Your task to perform on an android device: toggle improve location accuracy Image 0: 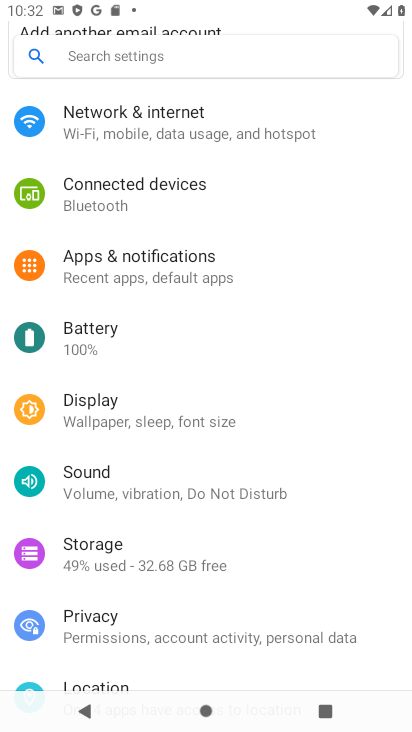
Step 0: drag from (171, 567) to (179, 428)
Your task to perform on an android device: toggle improve location accuracy Image 1: 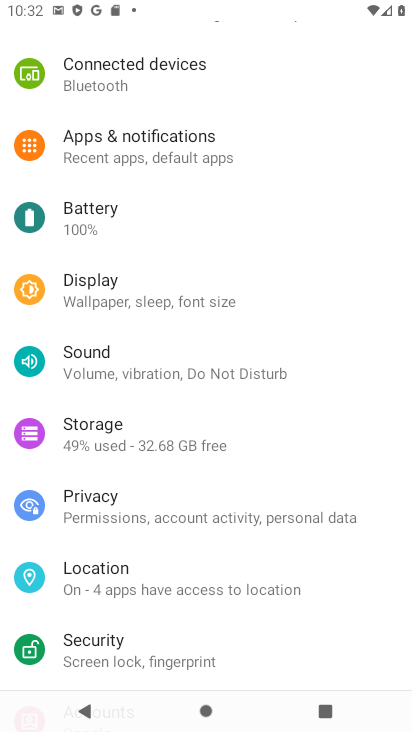
Step 1: click (156, 586)
Your task to perform on an android device: toggle improve location accuracy Image 2: 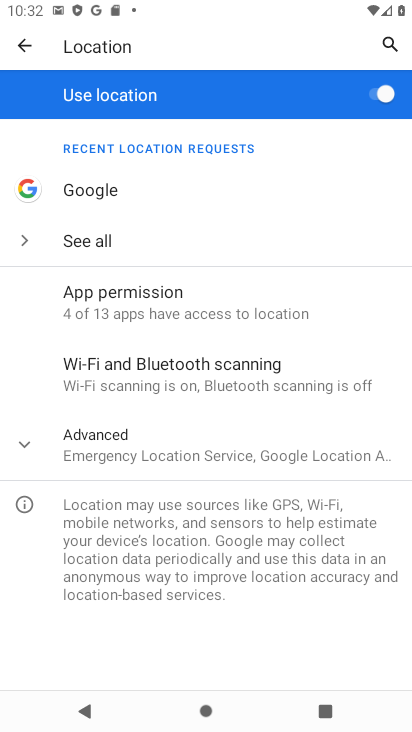
Step 2: click (127, 441)
Your task to perform on an android device: toggle improve location accuracy Image 3: 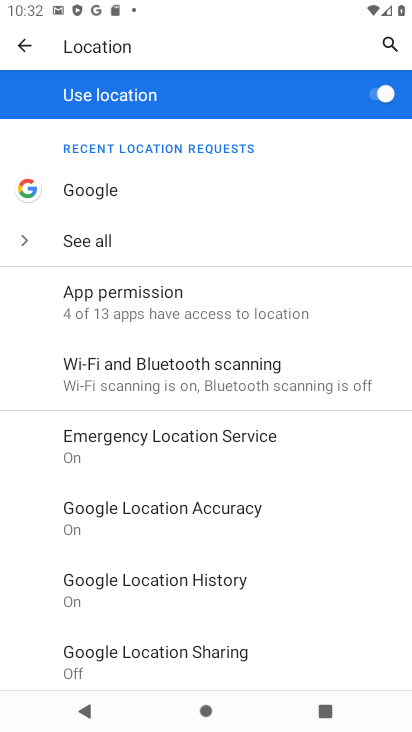
Step 3: click (187, 529)
Your task to perform on an android device: toggle improve location accuracy Image 4: 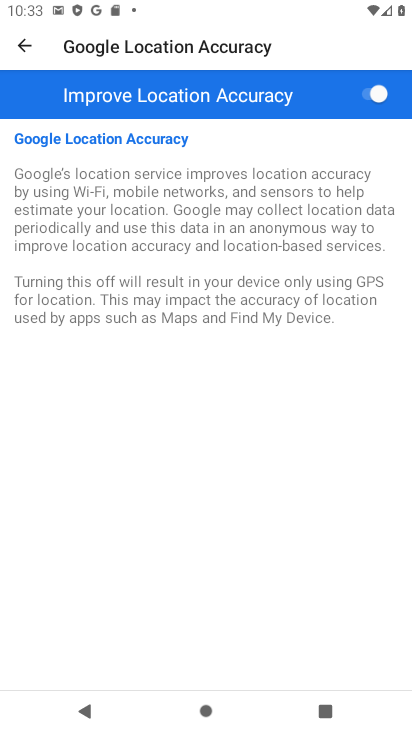
Step 4: click (340, 90)
Your task to perform on an android device: toggle improve location accuracy Image 5: 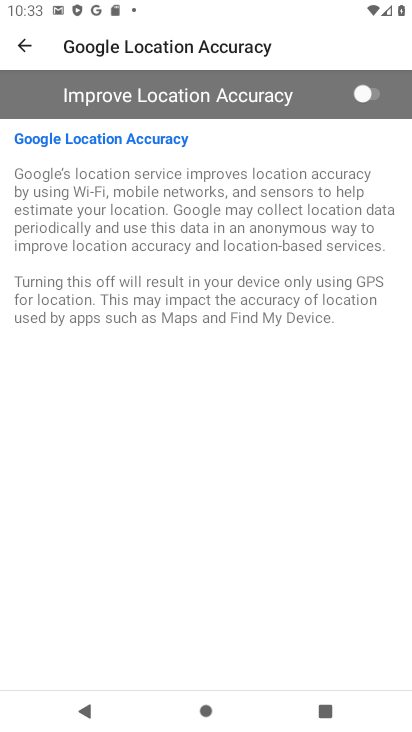
Step 5: task complete